Your task to perform on an android device: What's a good restaurant in Las Vegas? Image 0: 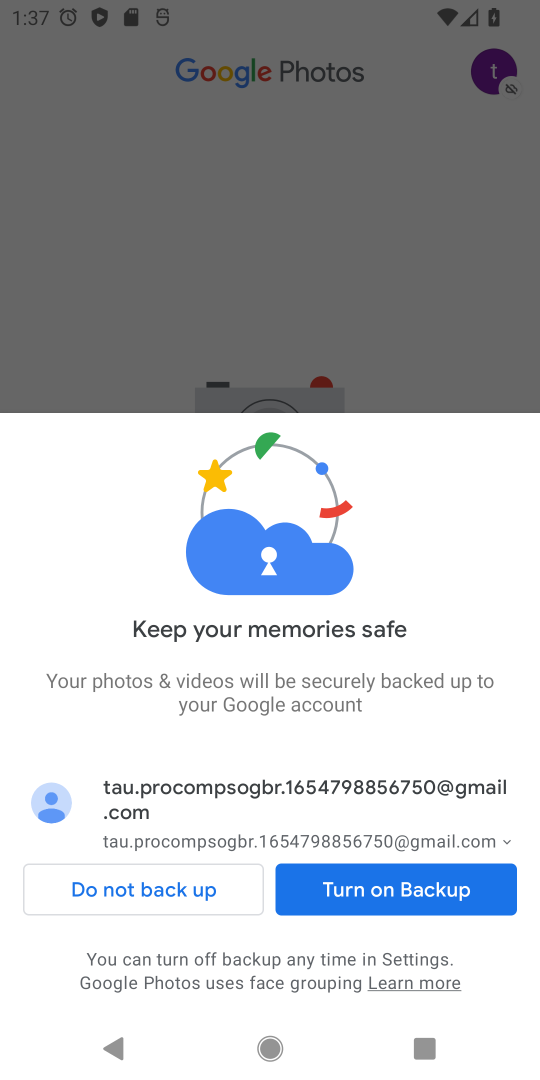
Step 0: press home button
Your task to perform on an android device: What's a good restaurant in Las Vegas? Image 1: 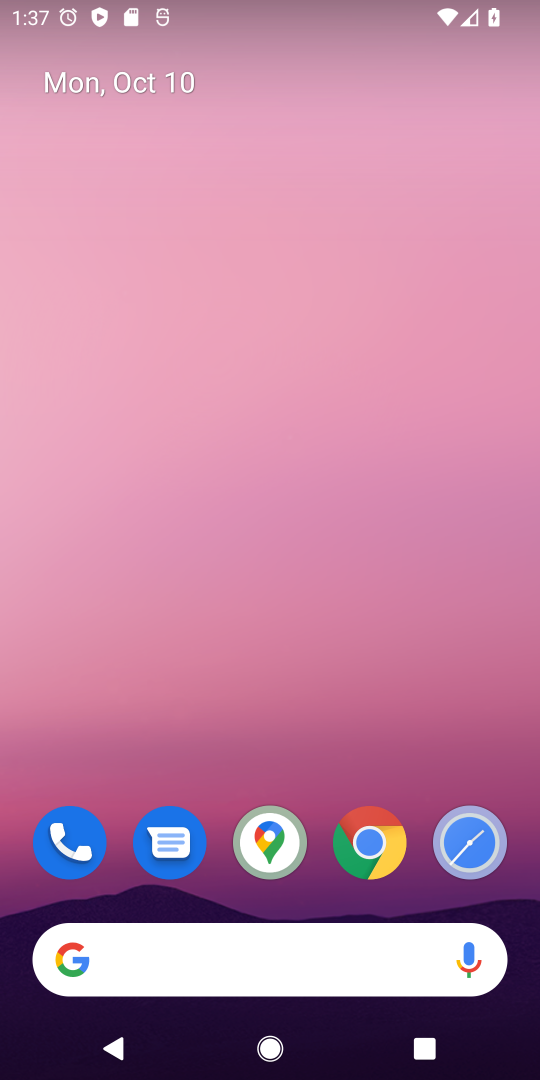
Step 1: click (383, 853)
Your task to perform on an android device: What's a good restaurant in Las Vegas? Image 2: 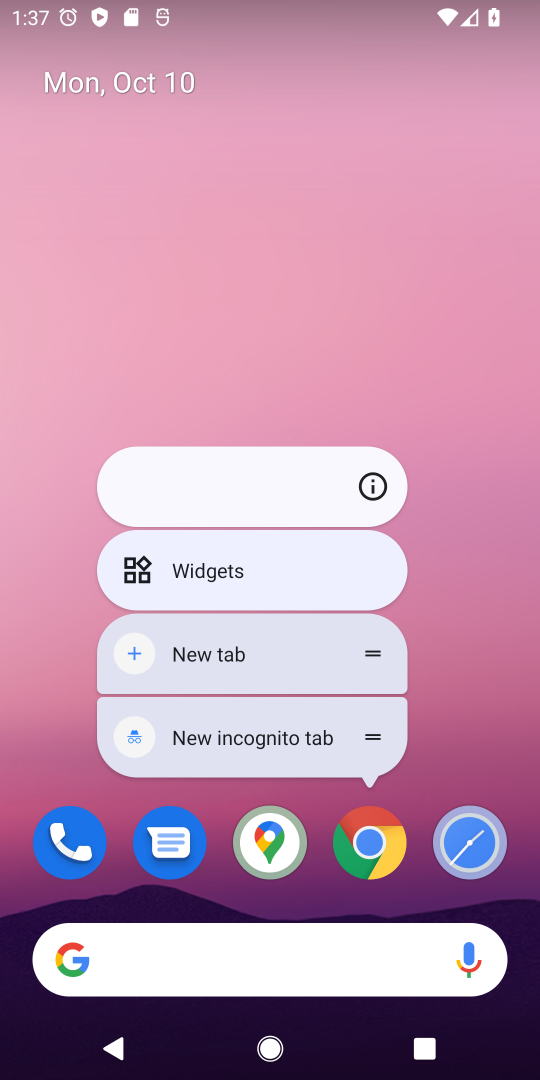
Step 2: click (360, 874)
Your task to perform on an android device: What's a good restaurant in Las Vegas? Image 3: 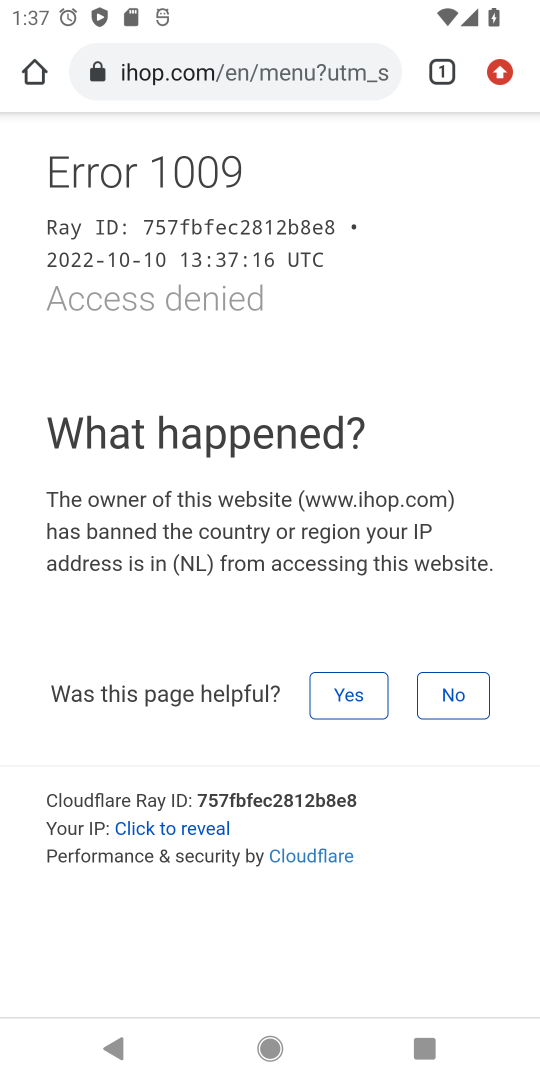
Step 3: click (270, 77)
Your task to perform on an android device: What's a good restaurant in Las Vegas? Image 4: 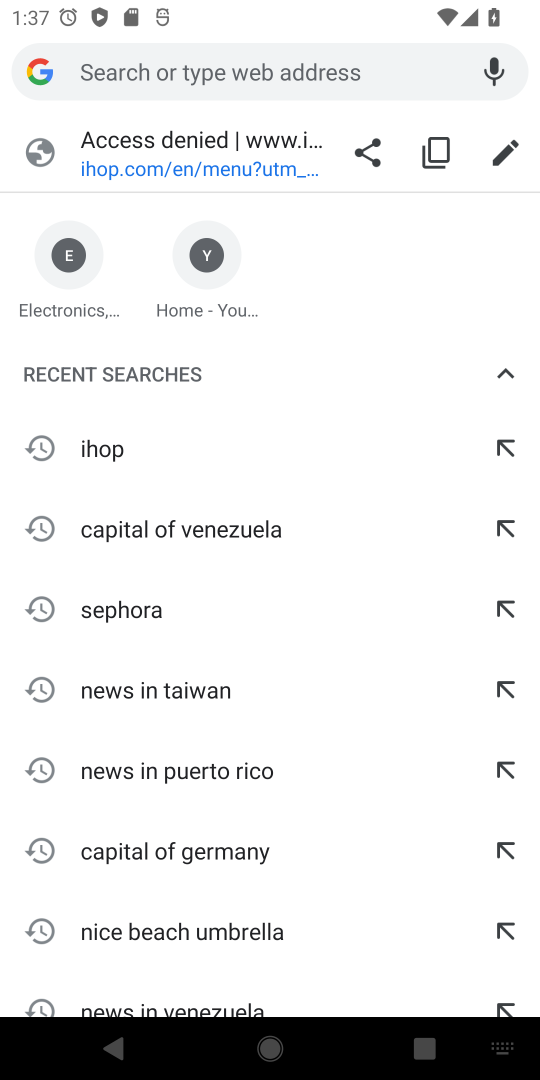
Step 4: type "good restaurant in Las Vegas"
Your task to perform on an android device: What's a good restaurant in Las Vegas? Image 5: 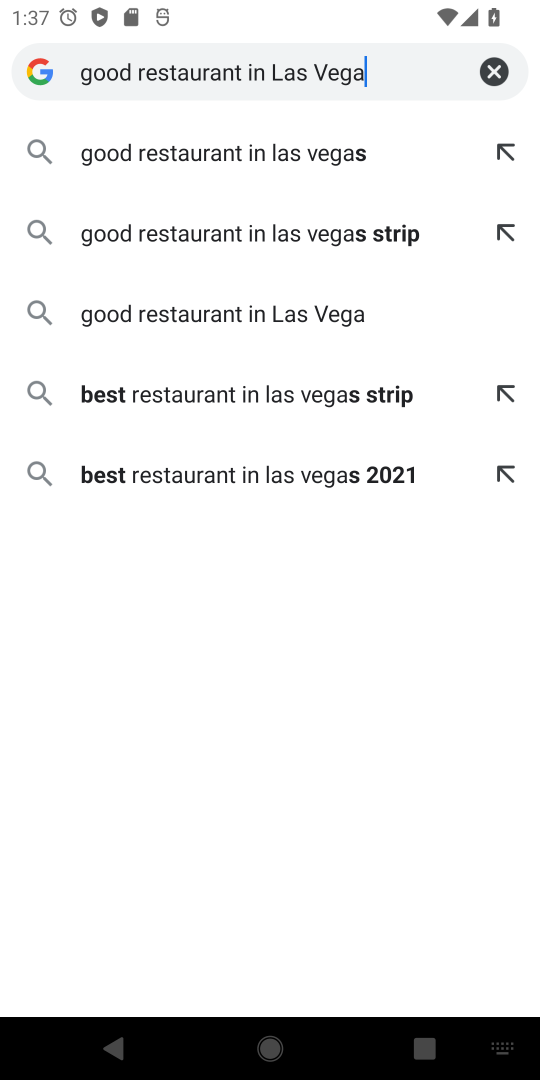
Step 5: press enter
Your task to perform on an android device: What's a good restaurant in Las Vegas? Image 6: 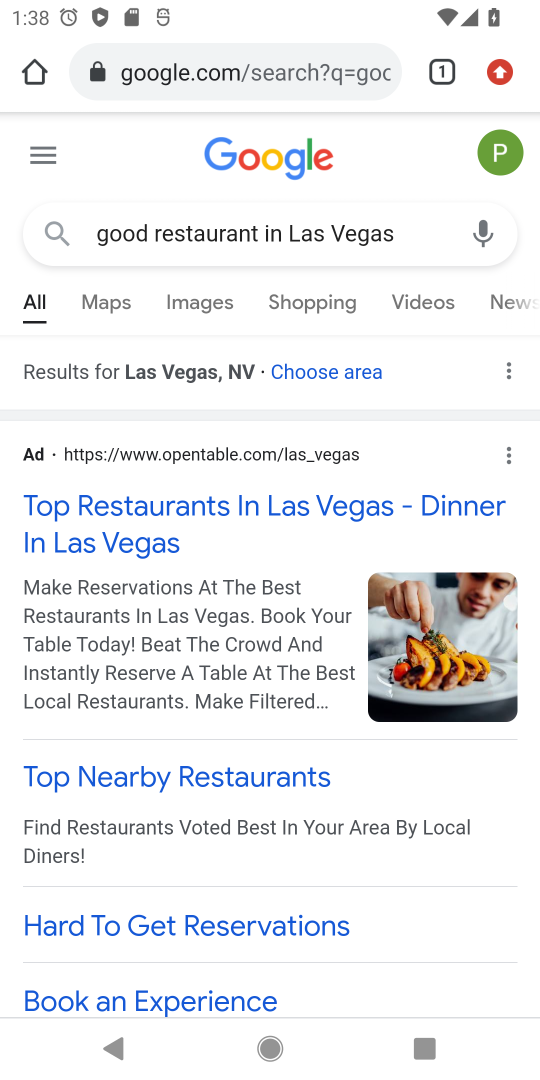
Step 6: task complete